Your task to perform on an android device: Open Youtube and go to "Your channel" Image 0: 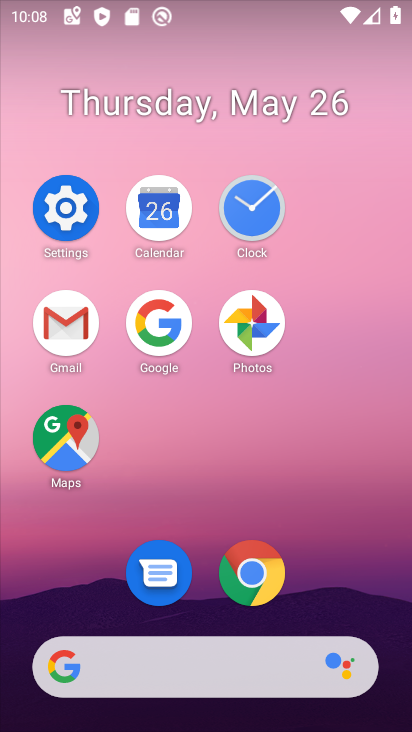
Step 0: drag from (323, 493) to (334, 79)
Your task to perform on an android device: Open Youtube and go to "Your channel" Image 1: 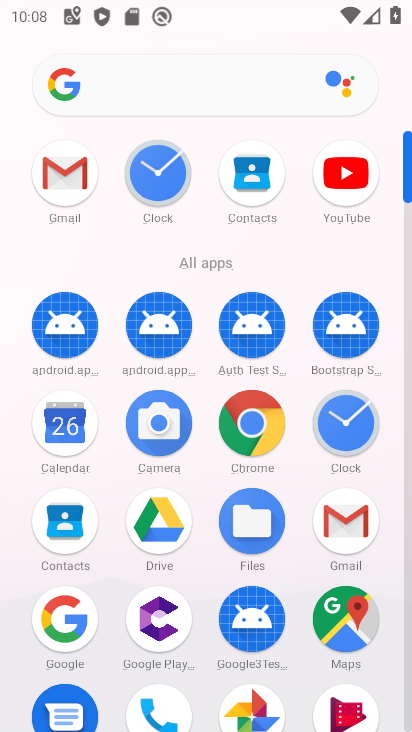
Step 1: drag from (339, 181) to (231, 424)
Your task to perform on an android device: Open Youtube and go to "Your channel" Image 2: 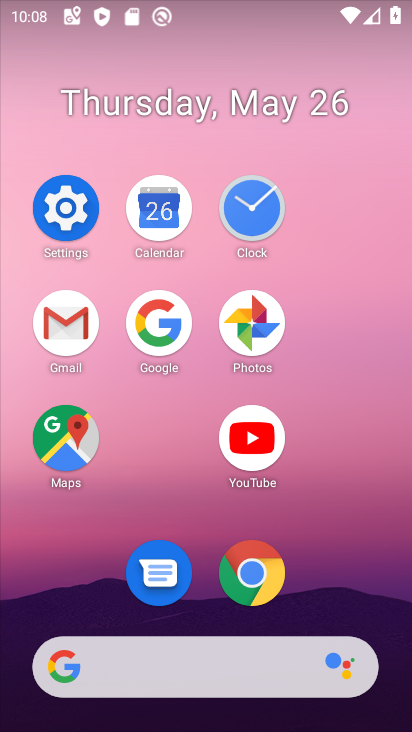
Step 2: drag from (314, 457) to (292, 2)
Your task to perform on an android device: Open Youtube and go to "Your channel" Image 3: 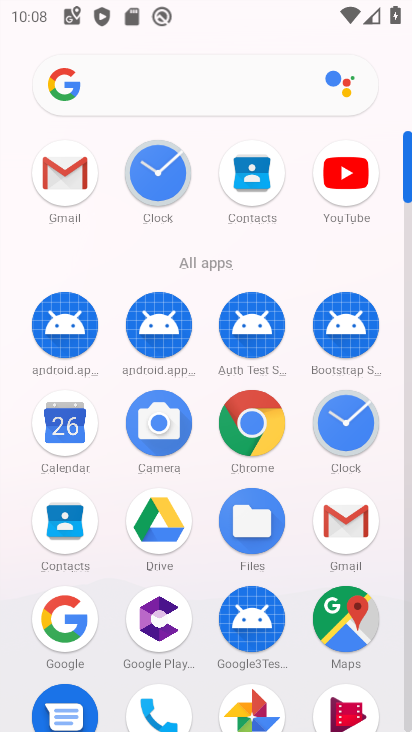
Step 3: drag from (175, 615) to (172, 229)
Your task to perform on an android device: Open Youtube and go to "Your channel" Image 4: 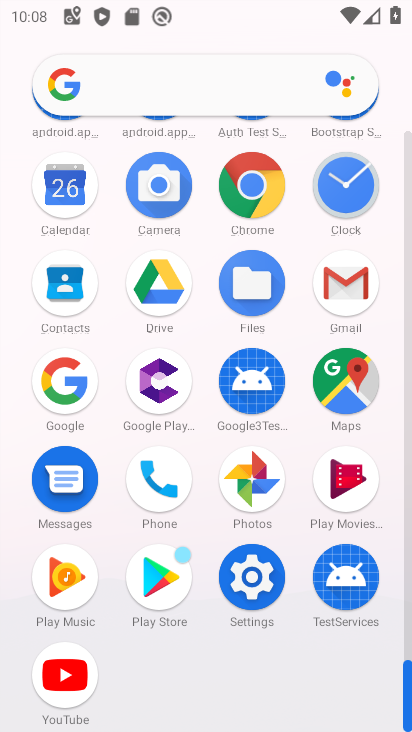
Step 4: drag from (147, 582) to (158, 430)
Your task to perform on an android device: Open Youtube and go to "Your channel" Image 5: 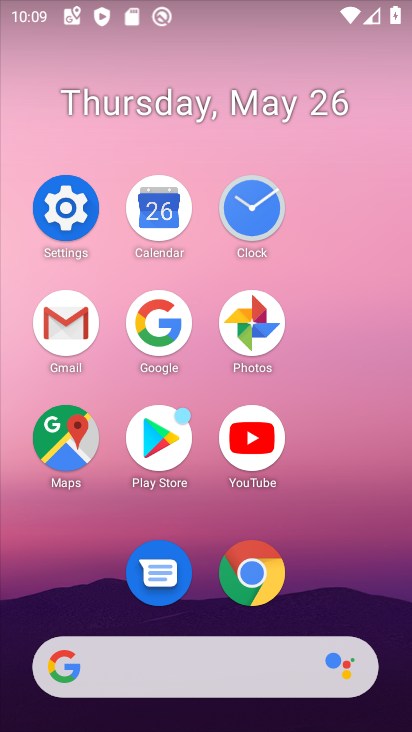
Step 5: click (237, 420)
Your task to perform on an android device: Open Youtube and go to "Your channel" Image 6: 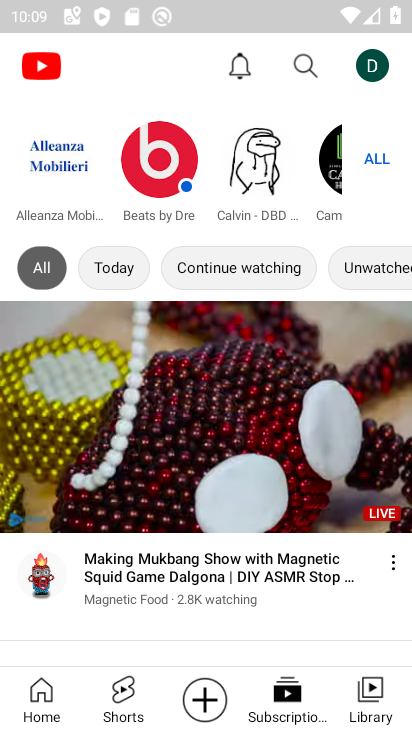
Step 6: click (373, 52)
Your task to perform on an android device: Open Youtube and go to "Your channel" Image 7: 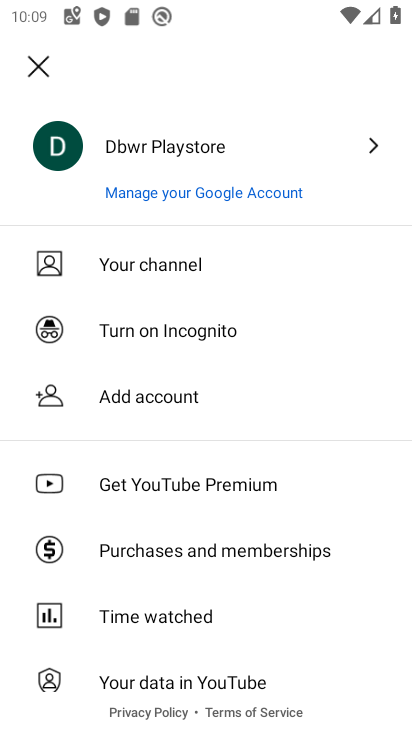
Step 7: click (158, 273)
Your task to perform on an android device: Open Youtube and go to "Your channel" Image 8: 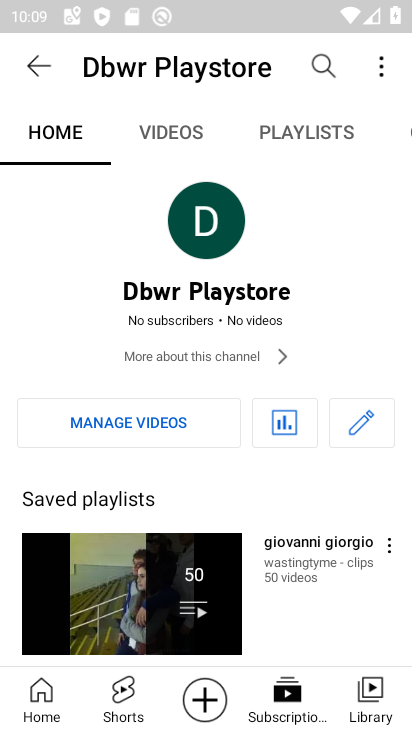
Step 8: task complete